Your task to perform on an android device: check android version Image 0: 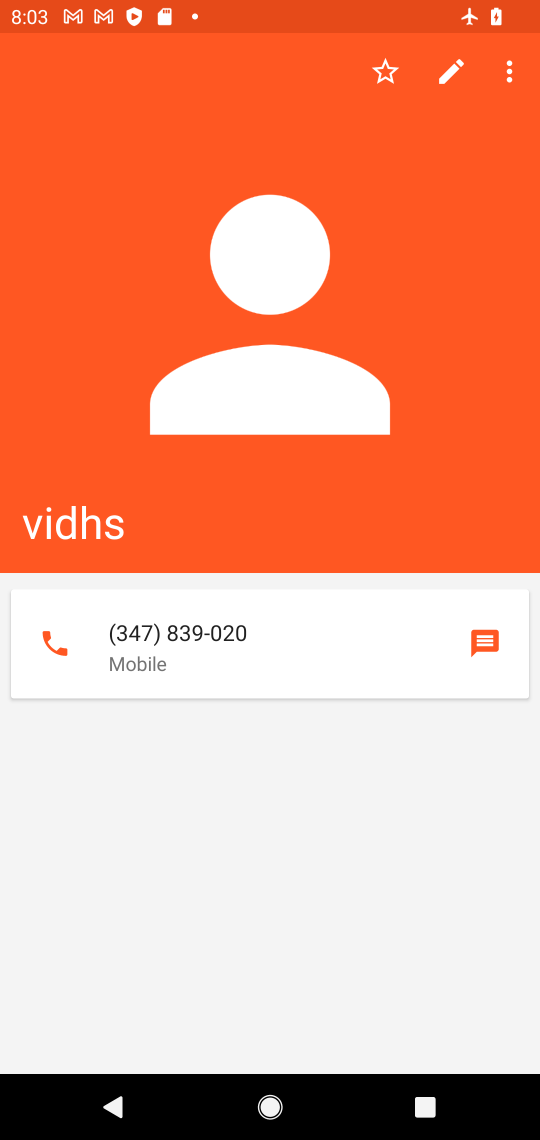
Step 0: press home button
Your task to perform on an android device: check android version Image 1: 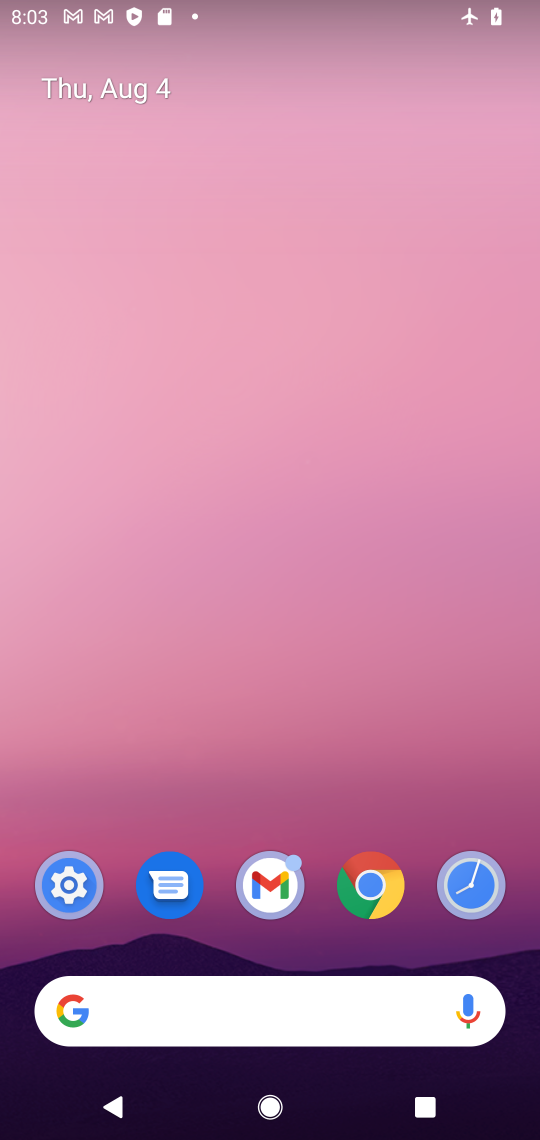
Step 1: press home button
Your task to perform on an android device: check android version Image 2: 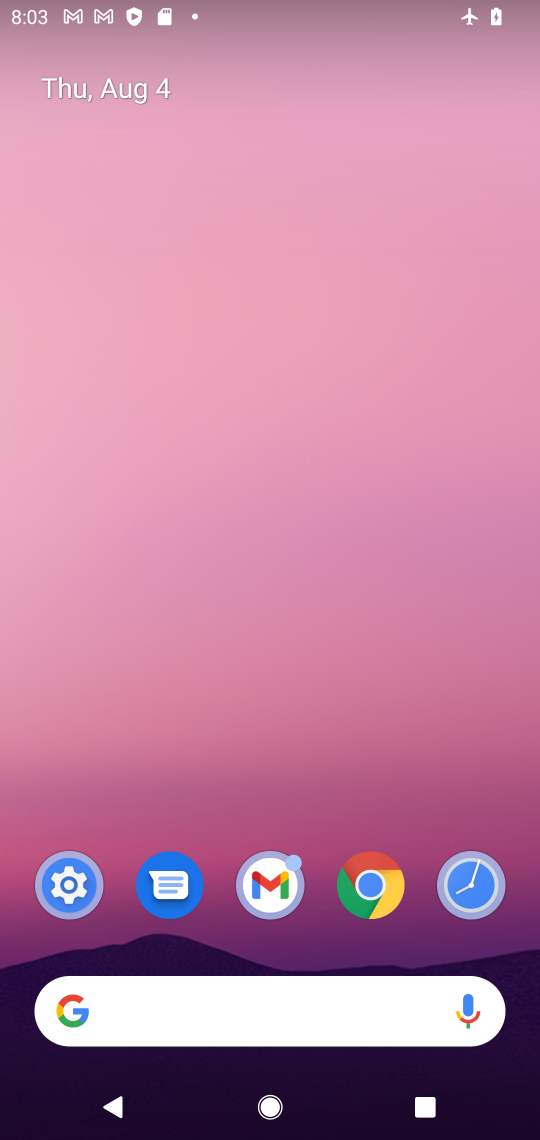
Step 2: drag from (318, 763) to (165, 91)
Your task to perform on an android device: check android version Image 3: 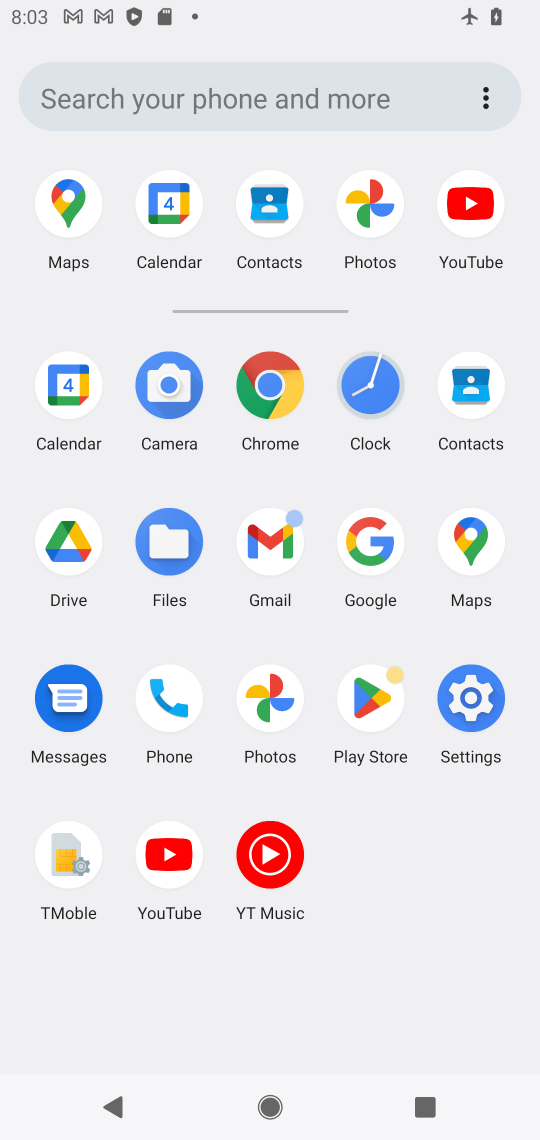
Step 3: click (433, 724)
Your task to perform on an android device: check android version Image 4: 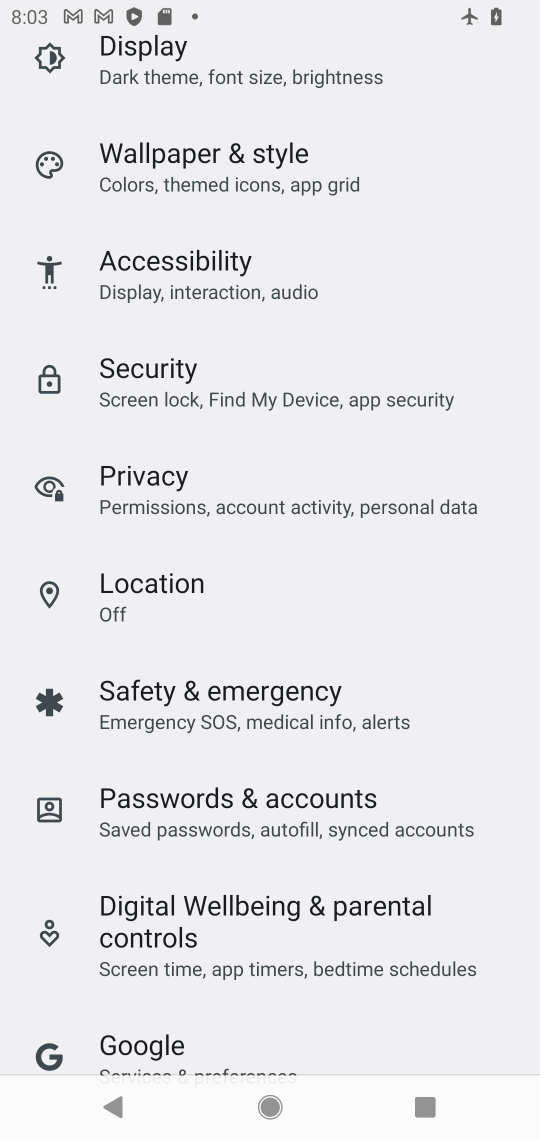
Step 4: drag from (223, 967) to (192, 148)
Your task to perform on an android device: check android version Image 5: 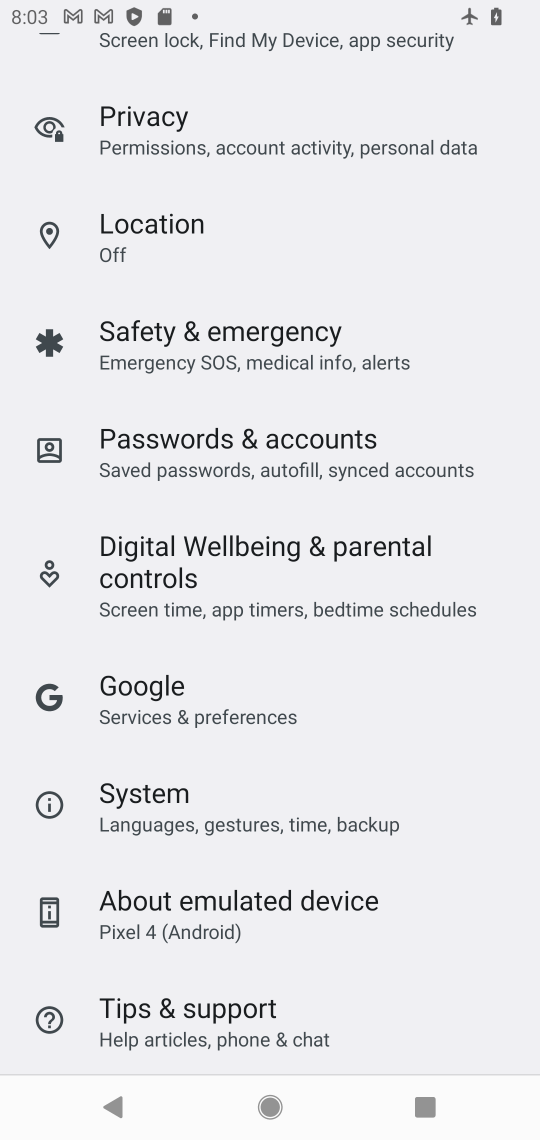
Step 5: drag from (202, 862) to (203, 346)
Your task to perform on an android device: check android version Image 6: 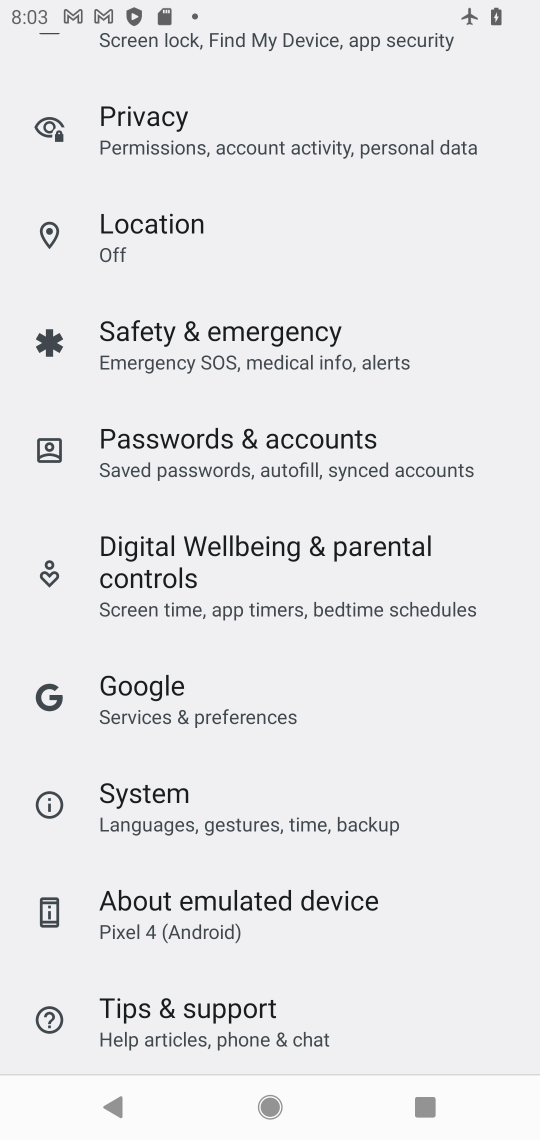
Step 6: click (173, 936)
Your task to perform on an android device: check android version Image 7: 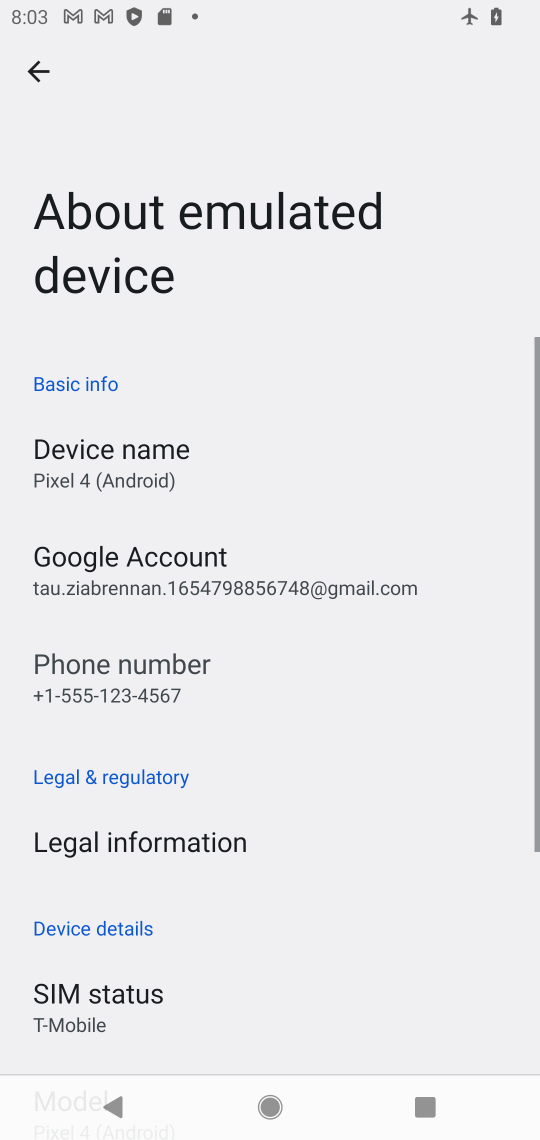
Step 7: drag from (173, 923) to (325, 272)
Your task to perform on an android device: check android version Image 8: 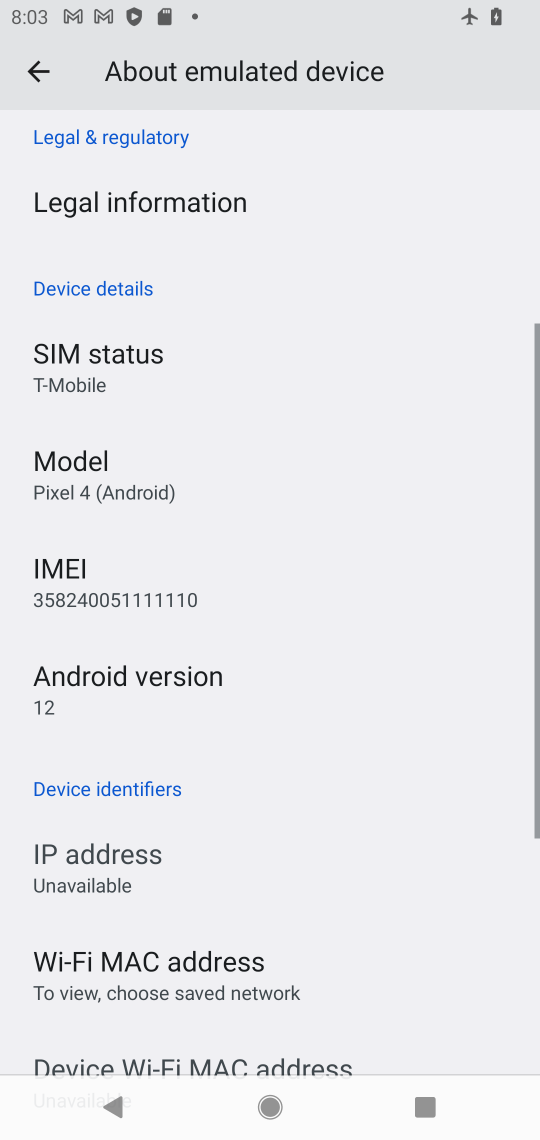
Step 8: click (204, 686)
Your task to perform on an android device: check android version Image 9: 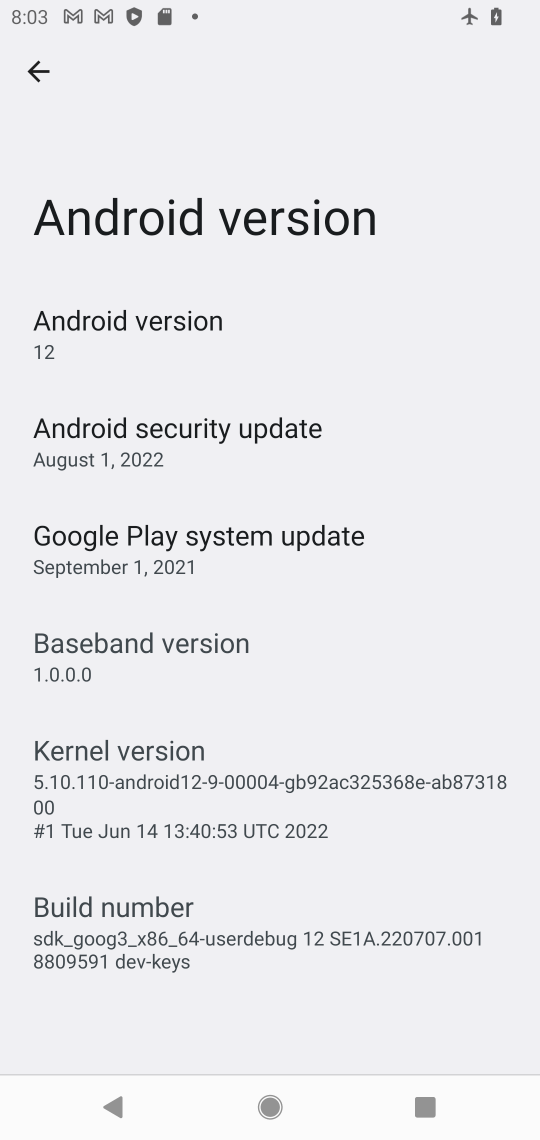
Step 9: task complete